Your task to perform on an android device: Go to location settings Image 0: 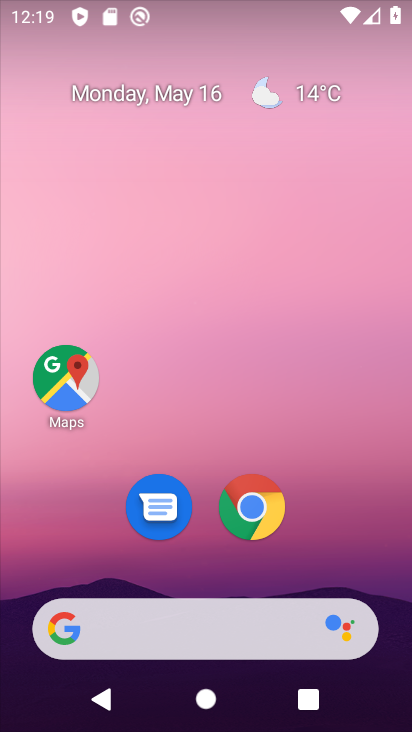
Step 0: drag from (353, 407) to (353, 159)
Your task to perform on an android device: Go to location settings Image 1: 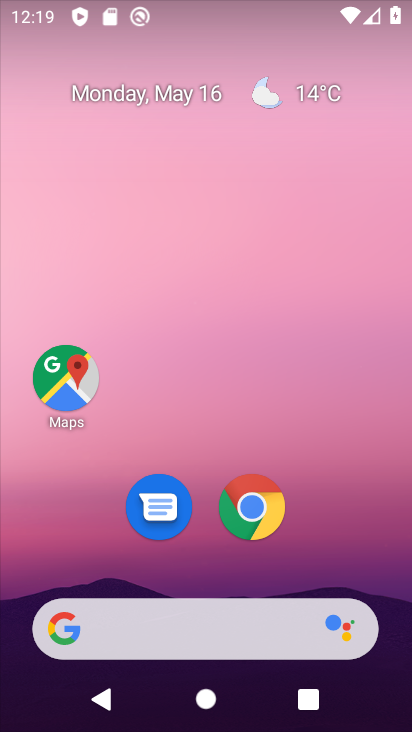
Step 1: drag from (300, 539) to (299, 1)
Your task to perform on an android device: Go to location settings Image 2: 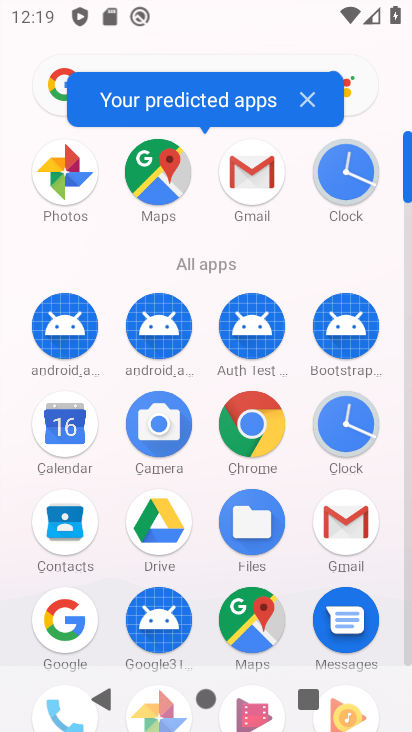
Step 2: drag from (306, 614) to (334, 156)
Your task to perform on an android device: Go to location settings Image 3: 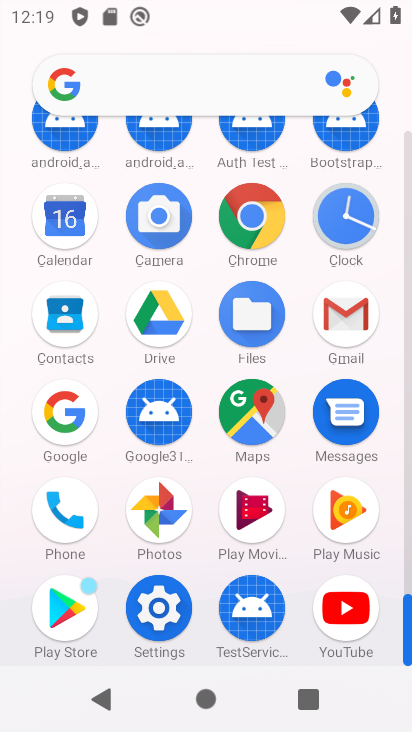
Step 3: click (171, 594)
Your task to perform on an android device: Go to location settings Image 4: 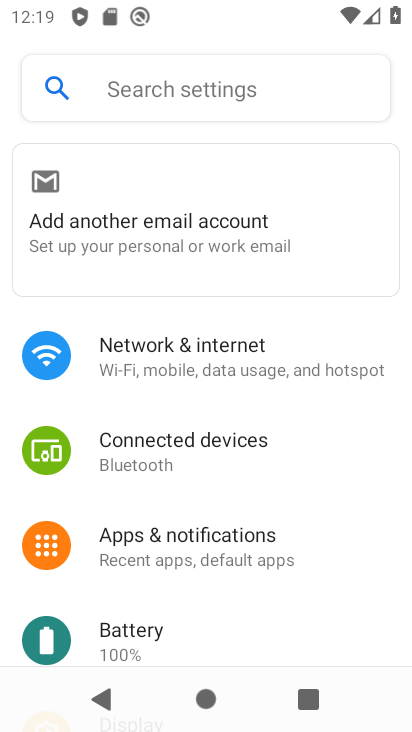
Step 4: drag from (190, 585) to (230, 211)
Your task to perform on an android device: Go to location settings Image 5: 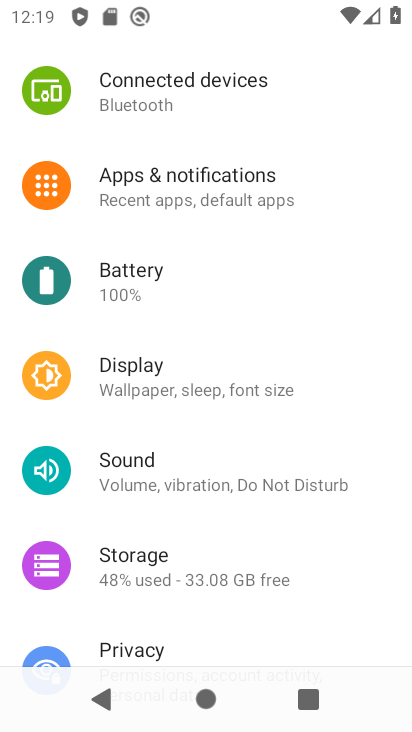
Step 5: drag from (254, 571) to (266, 201)
Your task to perform on an android device: Go to location settings Image 6: 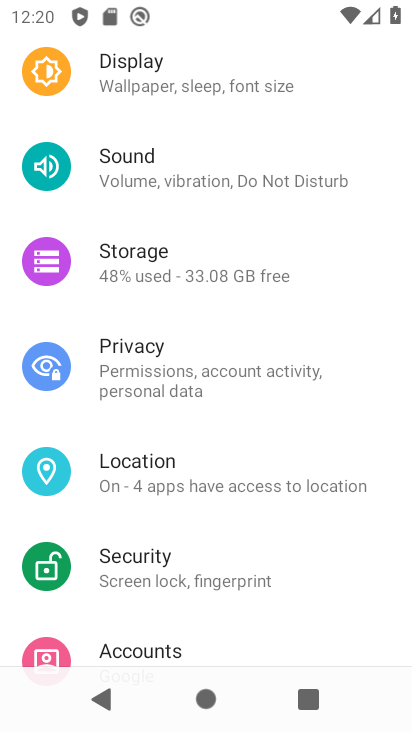
Step 6: drag from (202, 634) to (226, 223)
Your task to perform on an android device: Go to location settings Image 7: 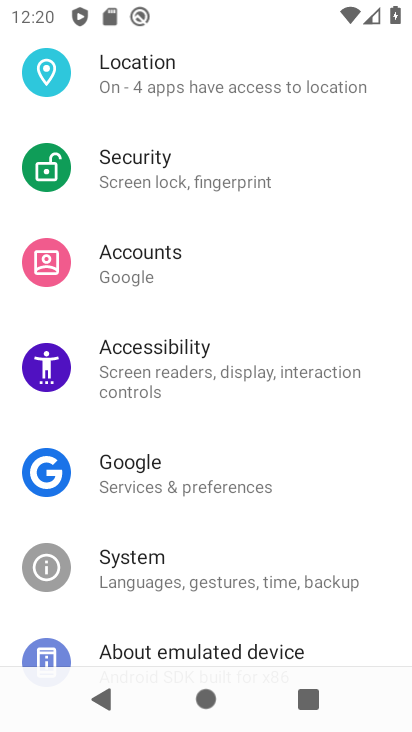
Step 7: click (204, 83)
Your task to perform on an android device: Go to location settings Image 8: 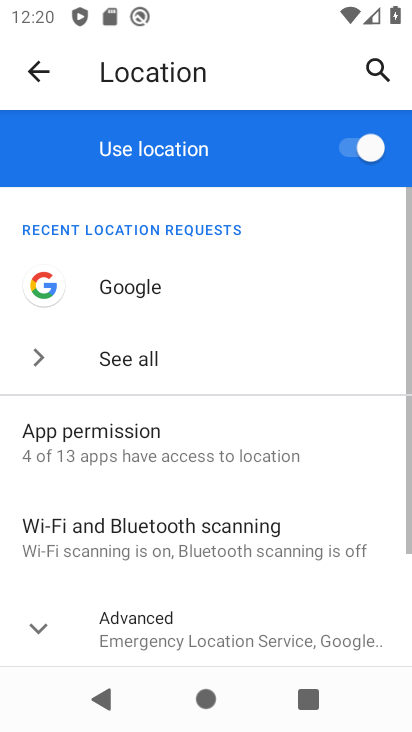
Step 8: task complete